Your task to perform on an android device: Play the last video I watched on Youtube Image 0: 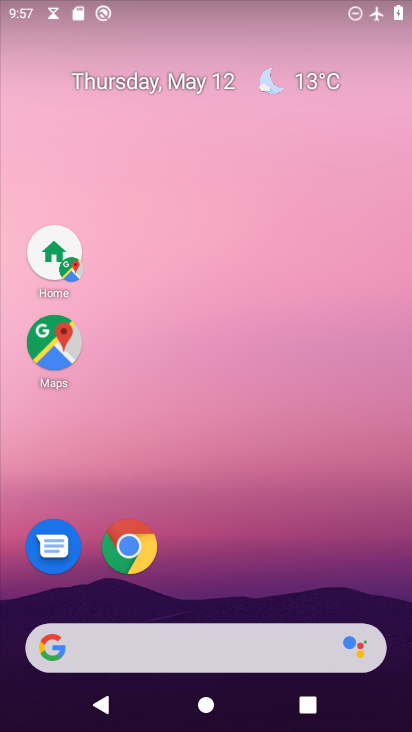
Step 0: drag from (234, 574) to (322, 95)
Your task to perform on an android device: Play the last video I watched on Youtube Image 1: 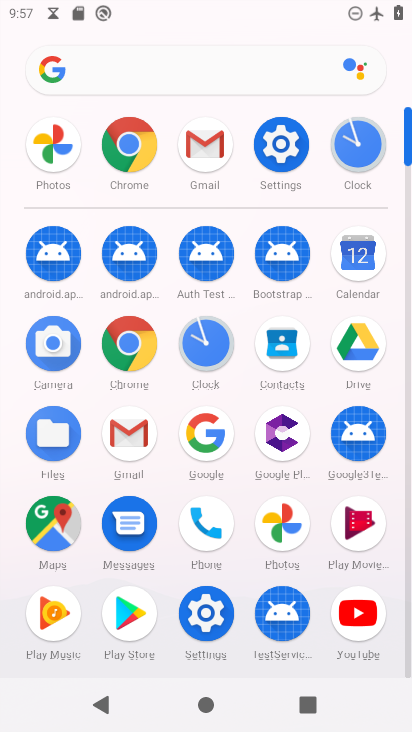
Step 1: click (358, 630)
Your task to perform on an android device: Play the last video I watched on Youtube Image 2: 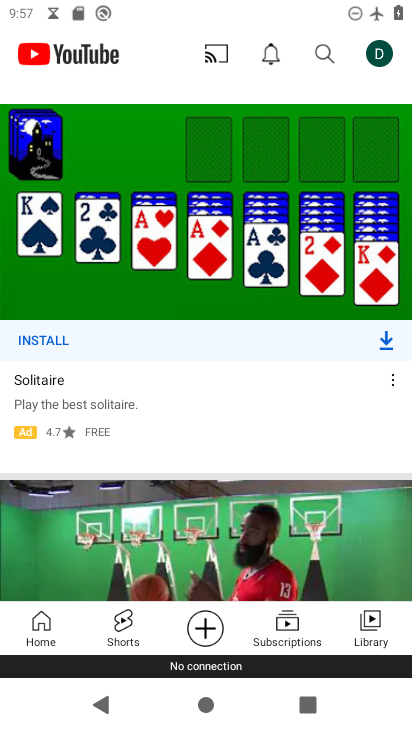
Step 2: click (363, 634)
Your task to perform on an android device: Play the last video I watched on Youtube Image 3: 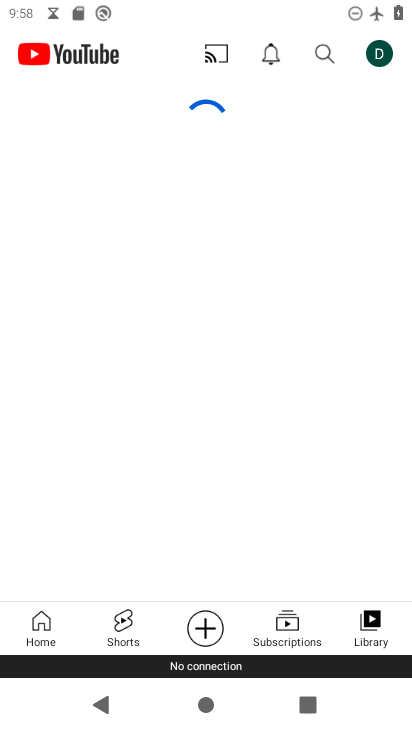
Step 3: drag from (258, 178) to (237, 550)
Your task to perform on an android device: Play the last video I watched on Youtube Image 4: 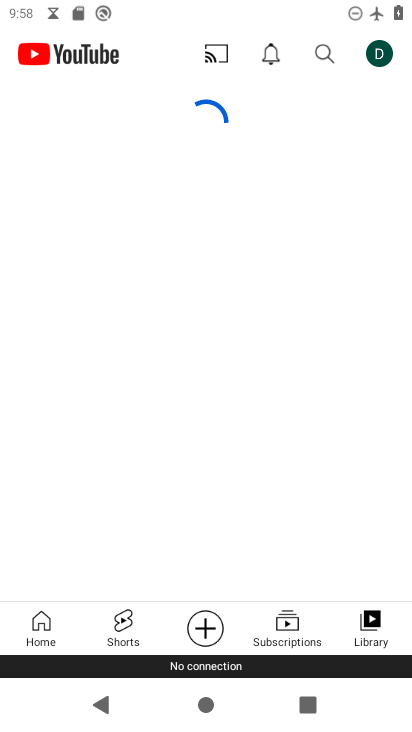
Step 4: click (368, 629)
Your task to perform on an android device: Play the last video I watched on Youtube Image 5: 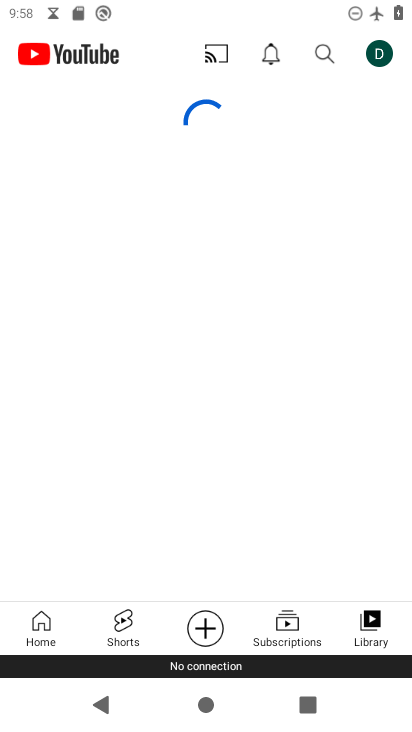
Step 5: click (196, 302)
Your task to perform on an android device: Play the last video I watched on Youtube Image 6: 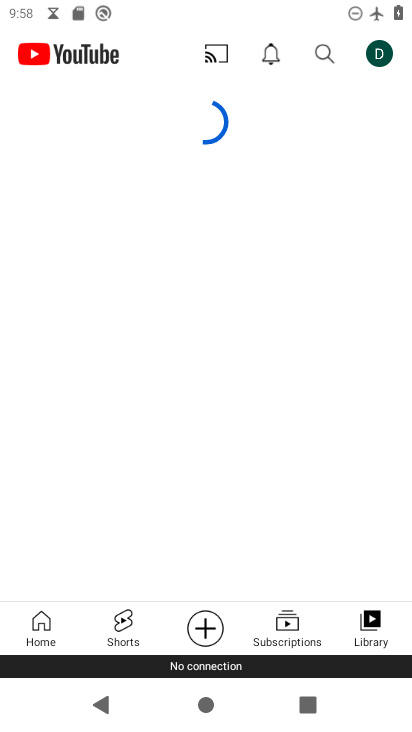
Step 6: task complete